Your task to perform on an android device: What is the speed of sound? Image 0: 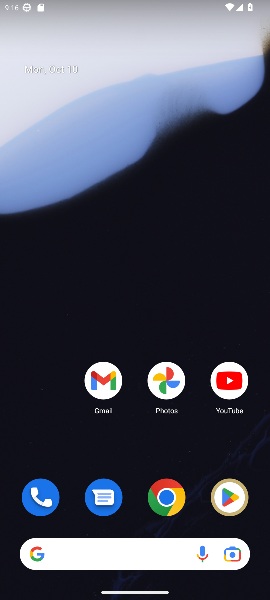
Step 0: drag from (135, 449) to (135, 87)
Your task to perform on an android device: What is the speed of sound? Image 1: 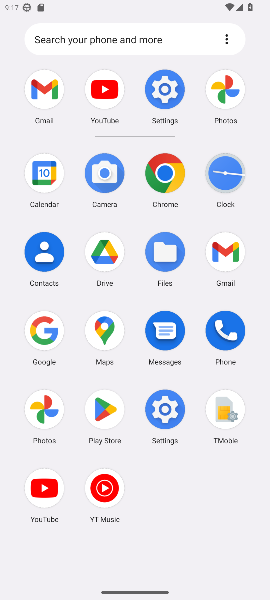
Step 1: click (38, 82)
Your task to perform on an android device: What is the speed of sound? Image 2: 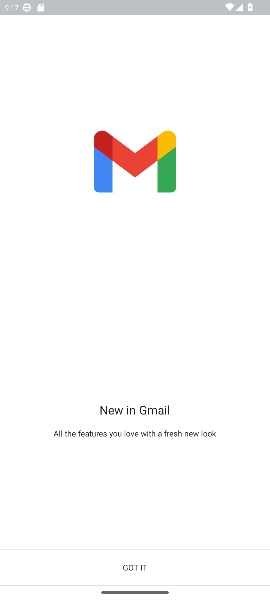
Step 2: press home button
Your task to perform on an android device: What is the speed of sound? Image 3: 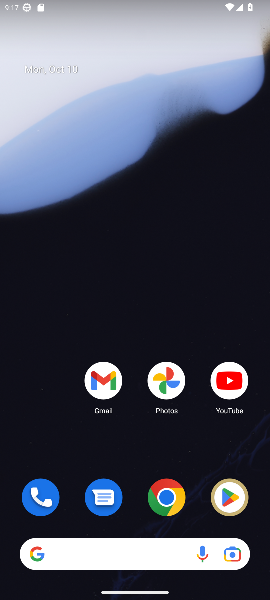
Step 3: drag from (125, 473) to (116, 59)
Your task to perform on an android device: What is the speed of sound? Image 4: 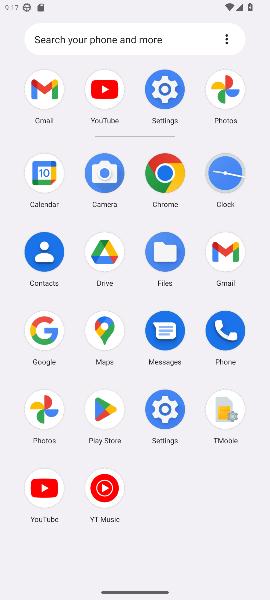
Step 4: click (36, 325)
Your task to perform on an android device: What is the speed of sound? Image 5: 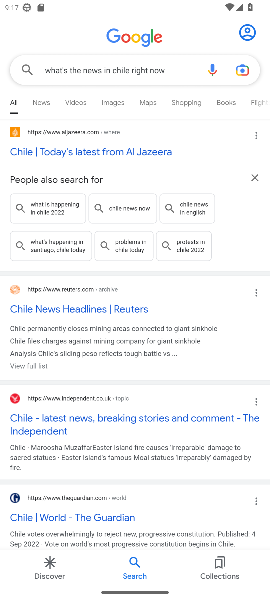
Step 5: click (111, 65)
Your task to perform on an android device: What is the speed of sound? Image 6: 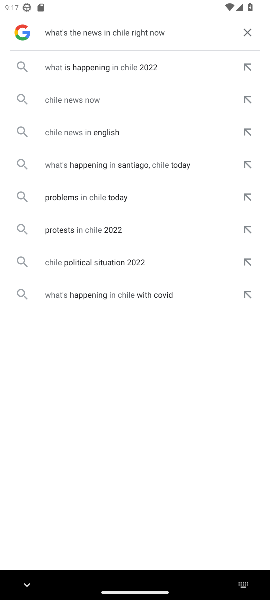
Step 6: click (244, 37)
Your task to perform on an android device: What is the speed of sound? Image 7: 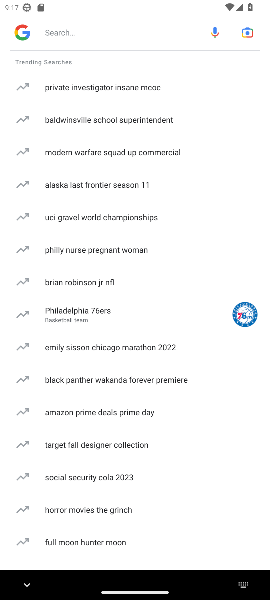
Step 7: click (68, 25)
Your task to perform on an android device: What is the speed of sound? Image 8: 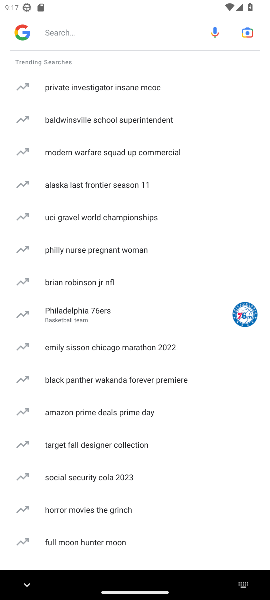
Step 8: type "What is the speed of sound? "
Your task to perform on an android device: What is the speed of sound? Image 9: 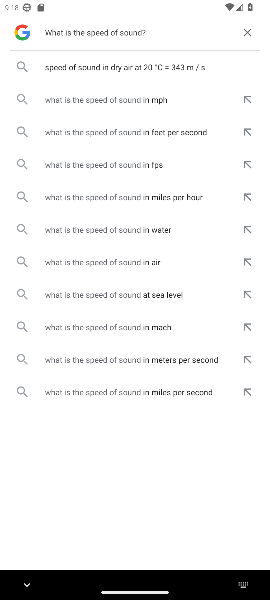
Step 9: click (88, 69)
Your task to perform on an android device: What is the speed of sound? Image 10: 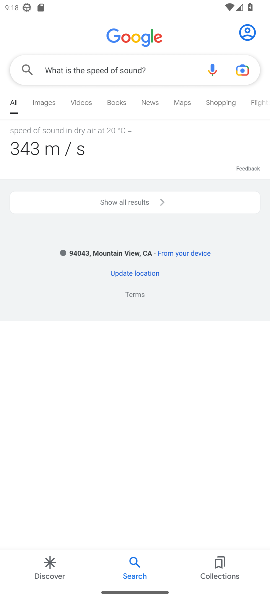
Step 10: task complete